Your task to perform on an android device: turn on translation in the chrome app Image 0: 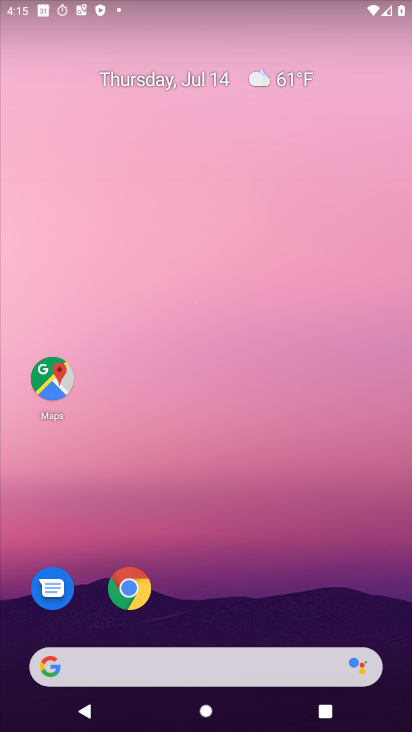
Step 0: click (129, 587)
Your task to perform on an android device: turn on translation in the chrome app Image 1: 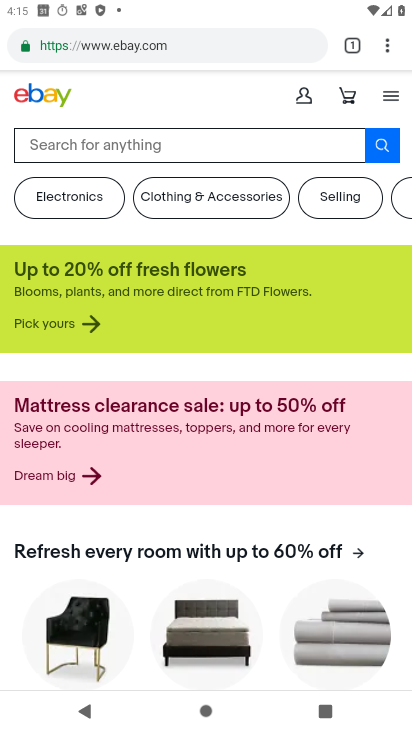
Step 1: click (388, 40)
Your task to perform on an android device: turn on translation in the chrome app Image 2: 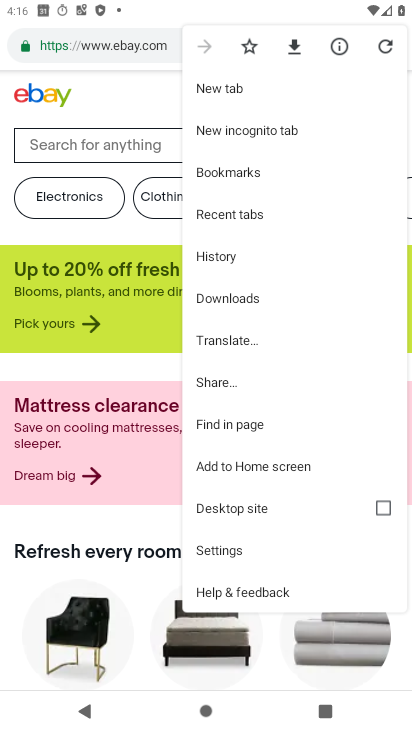
Step 2: click (224, 551)
Your task to perform on an android device: turn on translation in the chrome app Image 3: 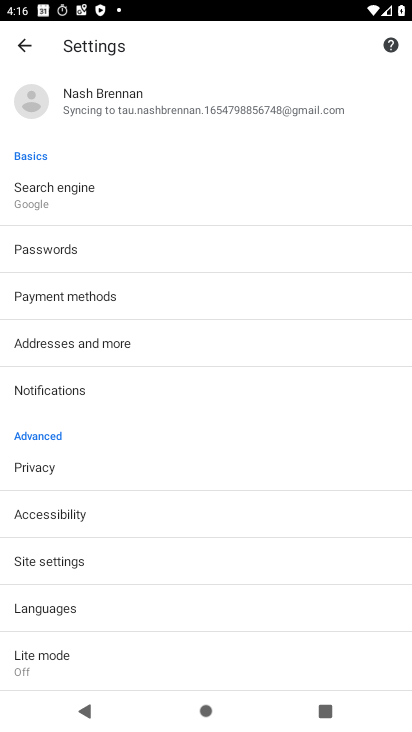
Step 3: click (59, 608)
Your task to perform on an android device: turn on translation in the chrome app Image 4: 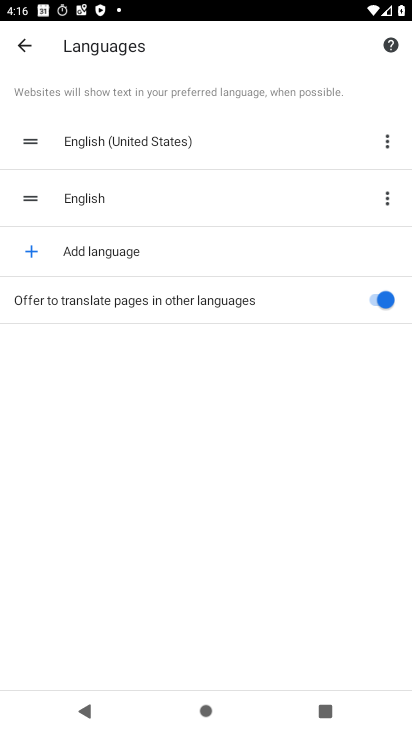
Step 4: task complete